Your task to perform on an android device: open app "Yahoo Mail" (install if not already installed) and go to login screen Image 0: 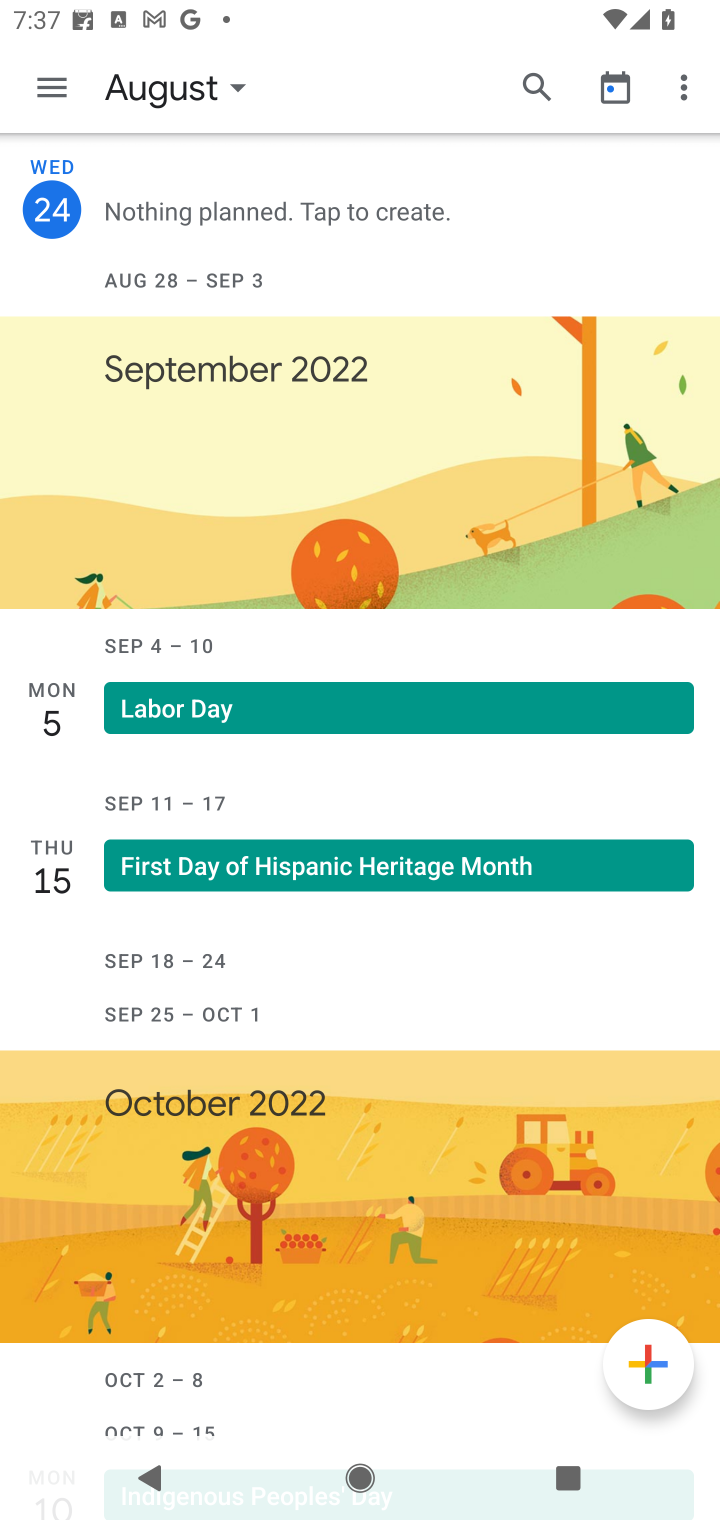
Step 0: press home button
Your task to perform on an android device: open app "Yahoo Mail" (install if not already installed) and go to login screen Image 1: 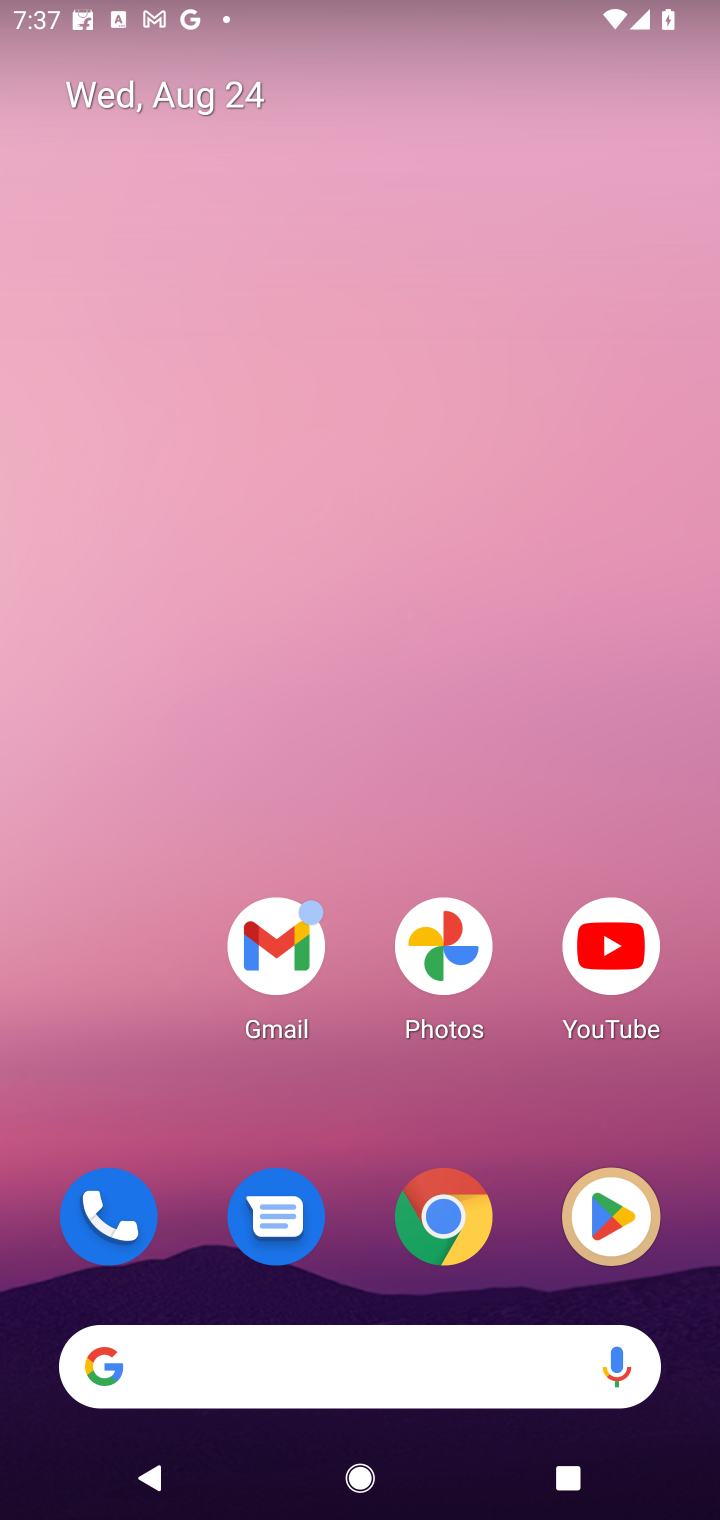
Step 1: click (592, 1257)
Your task to perform on an android device: open app "Yahoo Mail" (install if not already installed) and go to login screen Image 2: 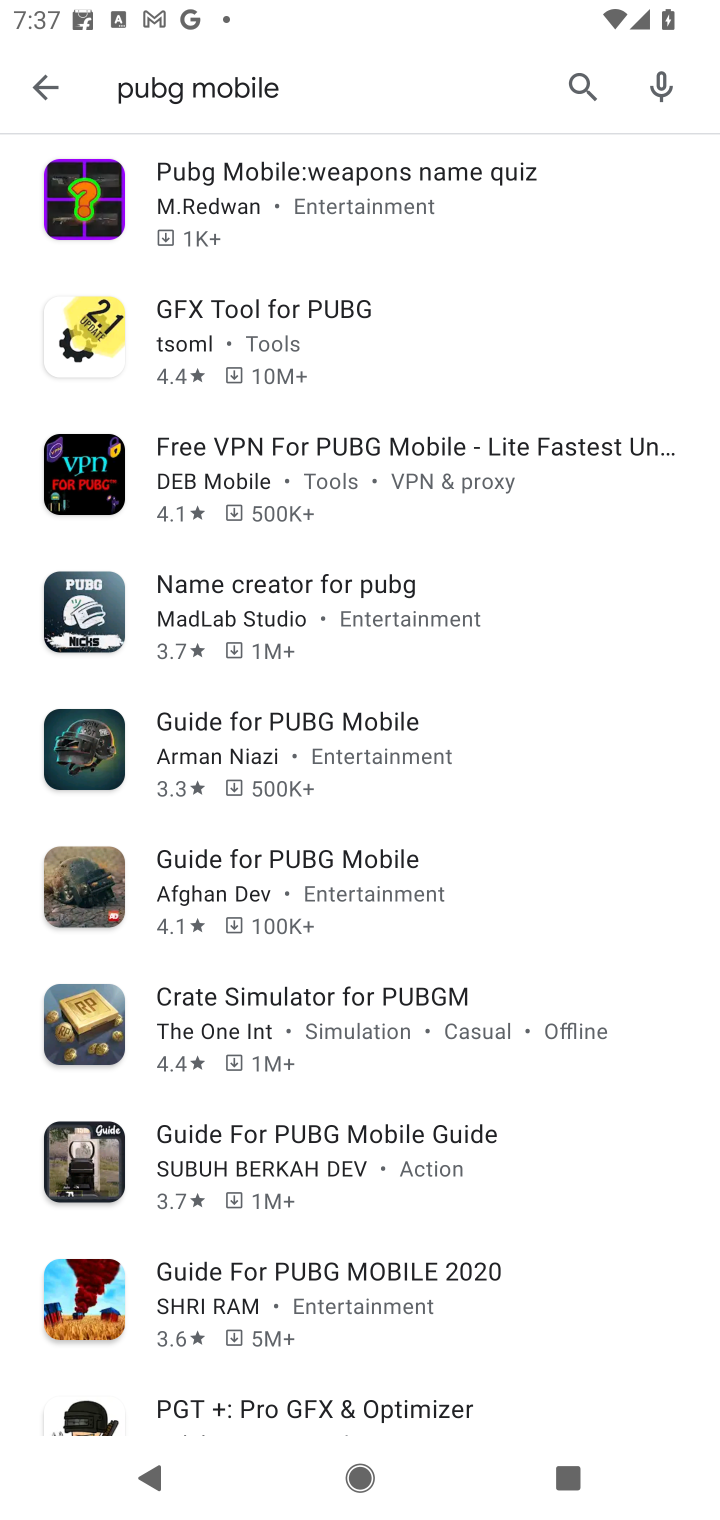
Step 2: click (569, 88)
Your task to perform on an android device: open app "Yahoo Mail" (install if not already installed) and go to login screen Image 3: 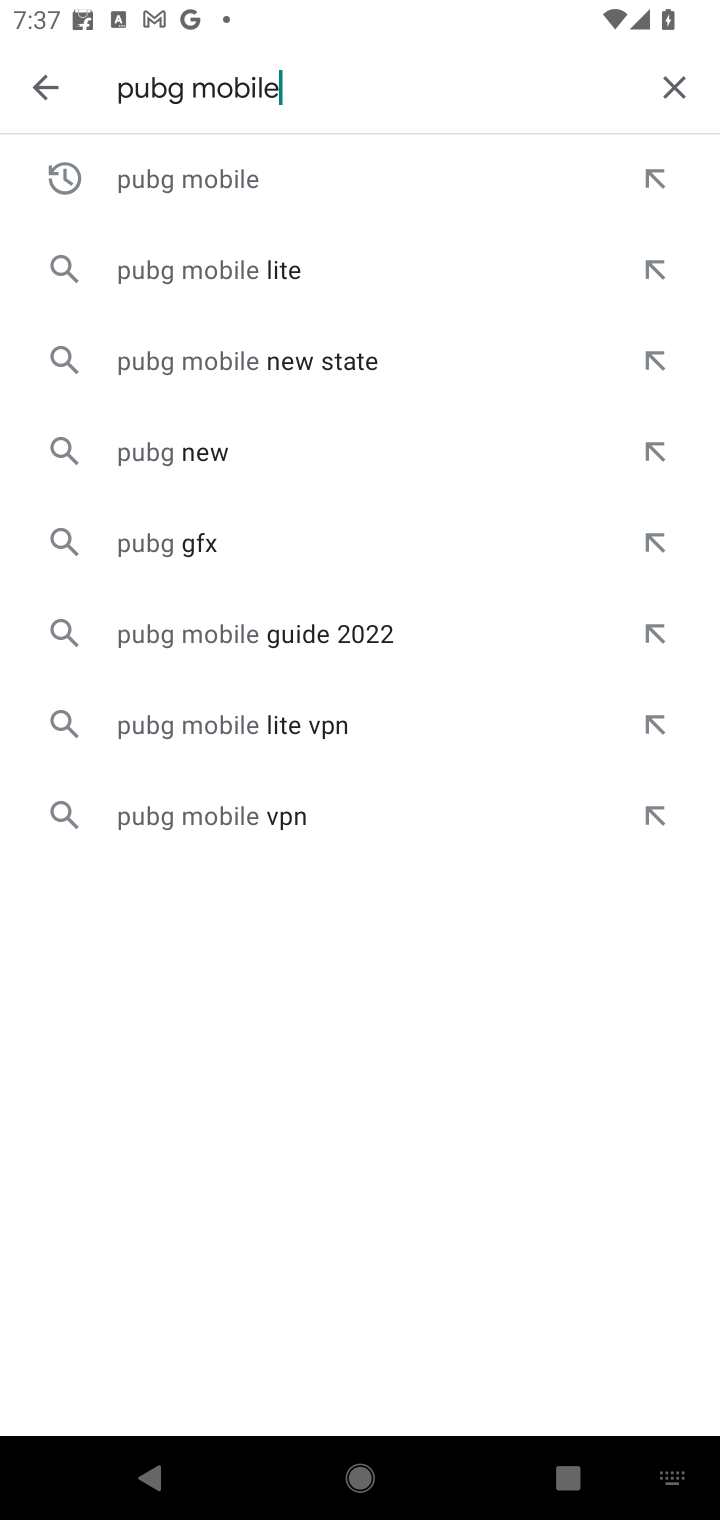
Step 3: click (668, 70)
Your task to perform on an android device: open app "Yahoo Mail" (install if not already installed) and go to login screen Image 4: 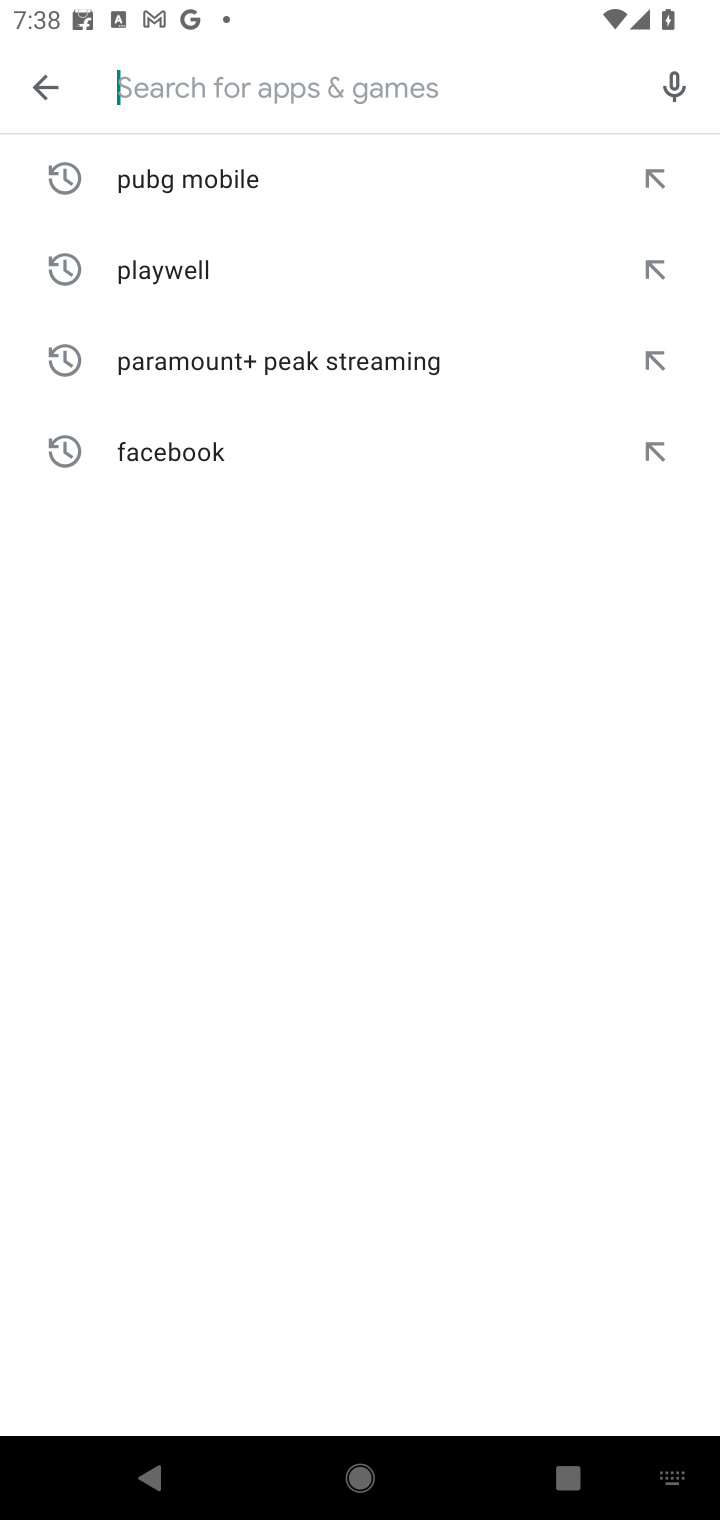
Step 4: type "Yahoo Mail"
Your task to perform on an android device: open app "Yahoo Mail" (install if not already installed) and go to login screen Image 5: 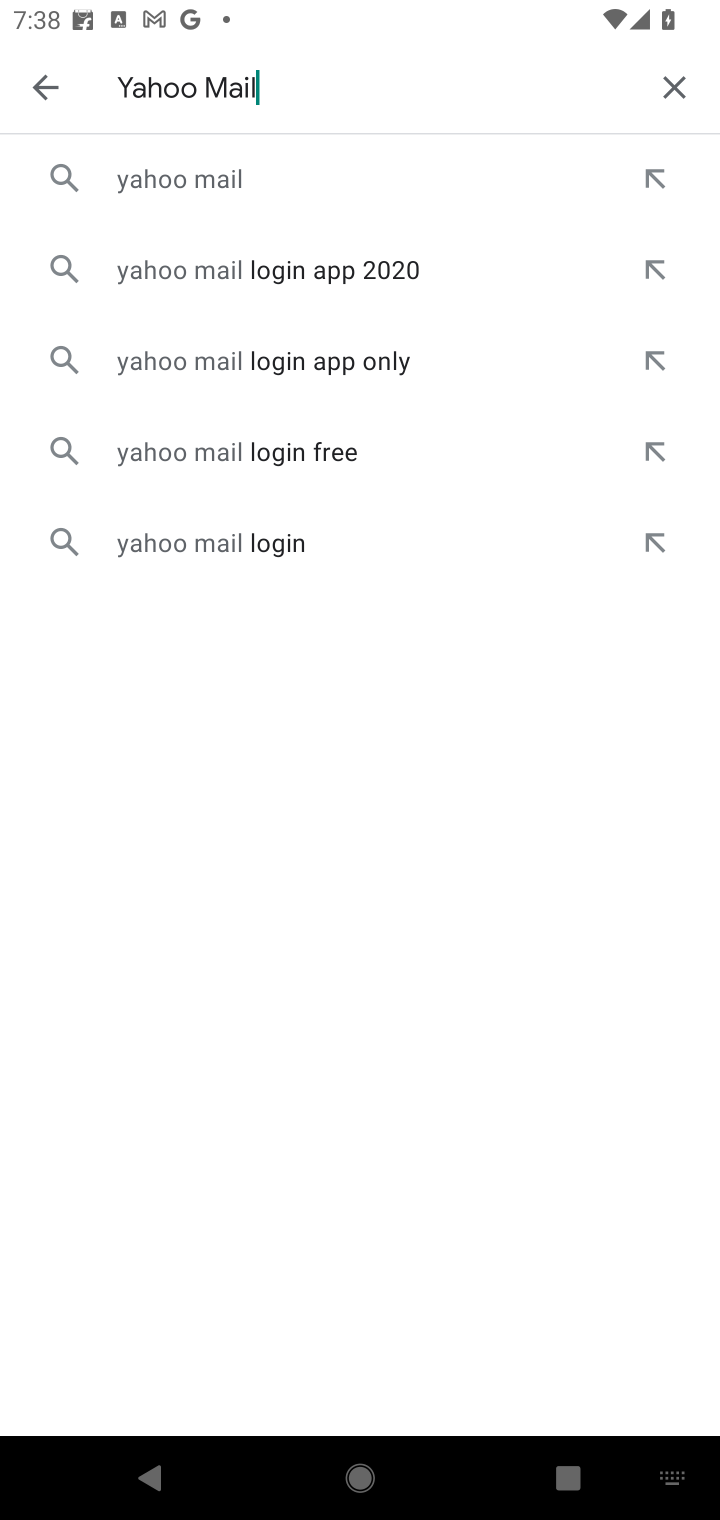
Step 5: click (245, 161)
Your task to perform on an android device: open app "Yahoo Mail" (install if not already installed) and go to login screen Image 6: 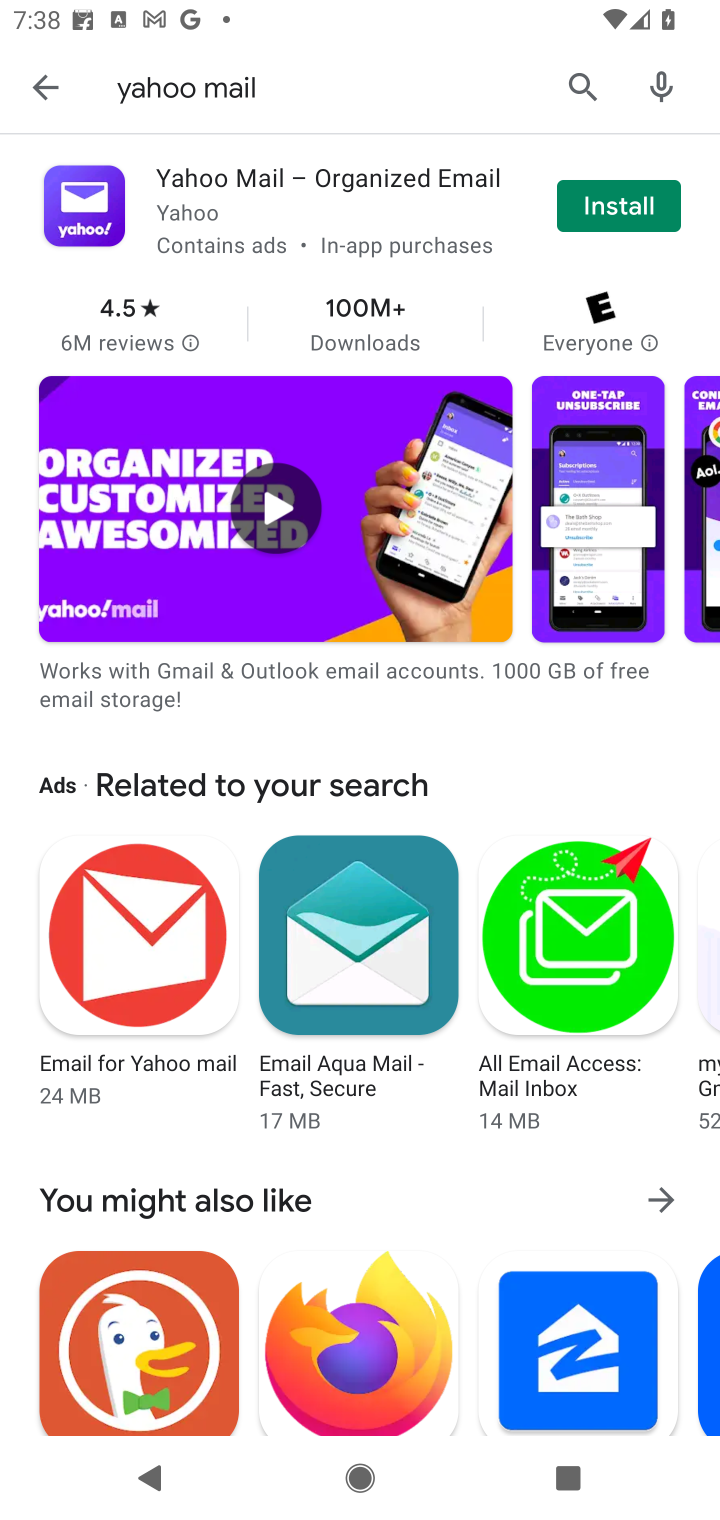
Step 6: click (623, 211)
Your task to perform on an android device: open app "Yahoo Mail" (install if not already installed) and go to login screen Image 7: 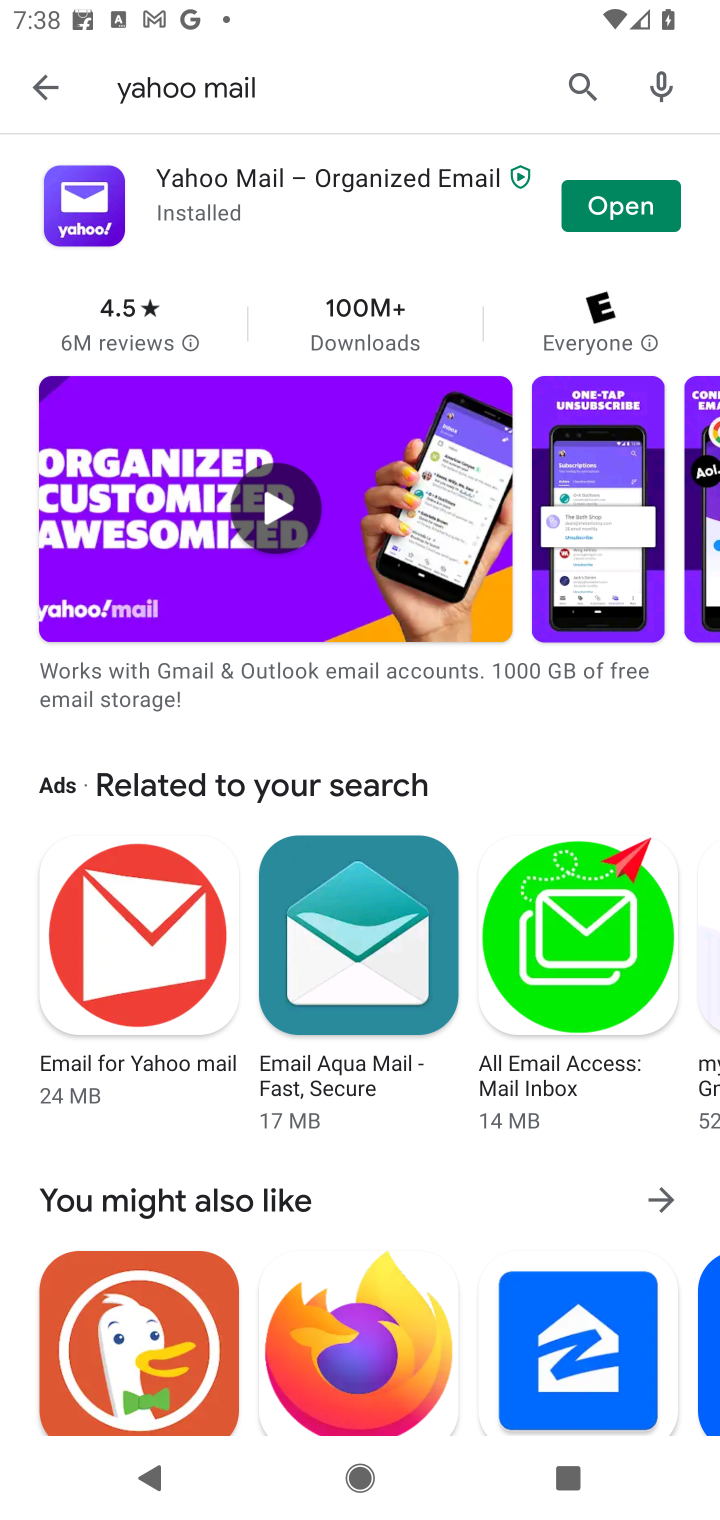
Step 7: click (659, 194)
Your task to perform on an android device: open app "Yahoo Mail" (install if not already installed) and go to login screen Image 8: 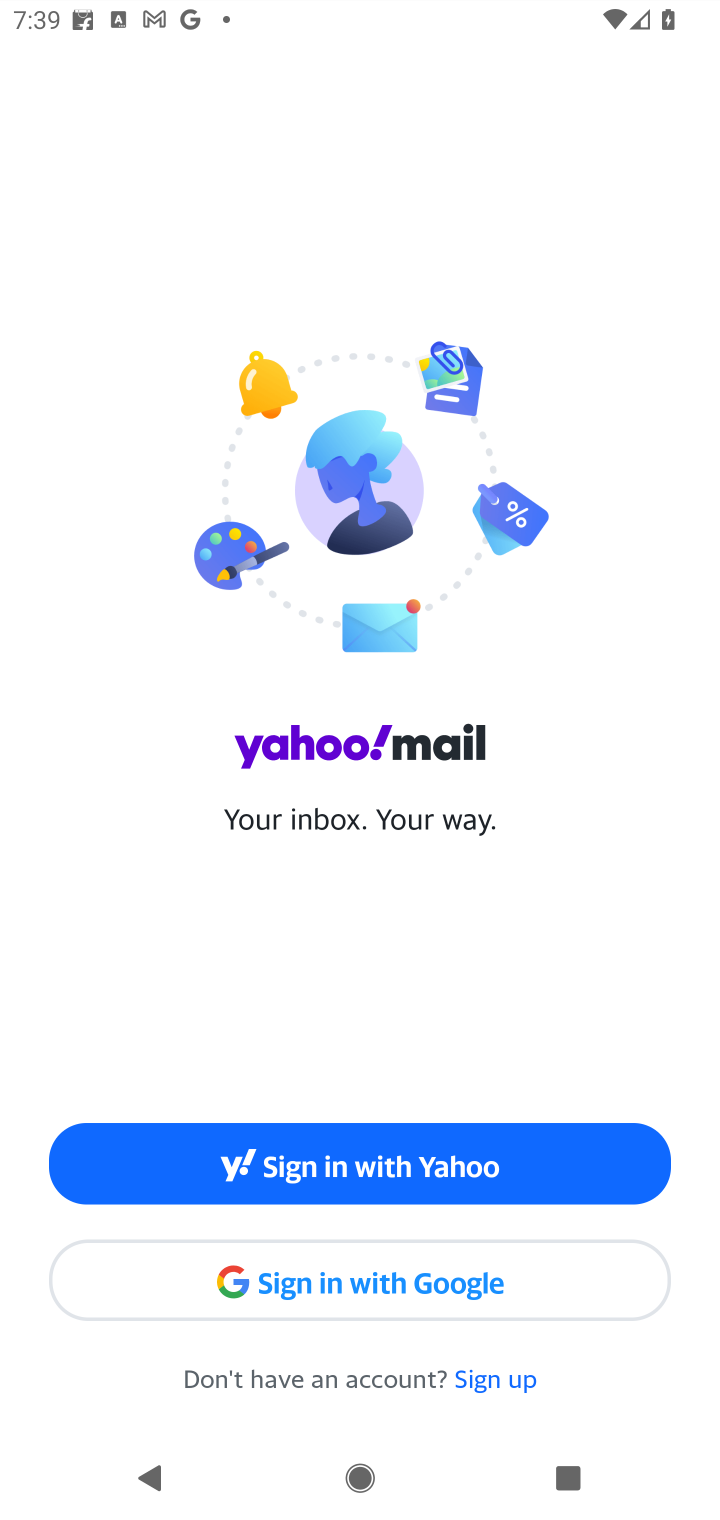
Step 8: task complete